Your task to perform on an android device: turn pop-ups on in chrome Image 0: 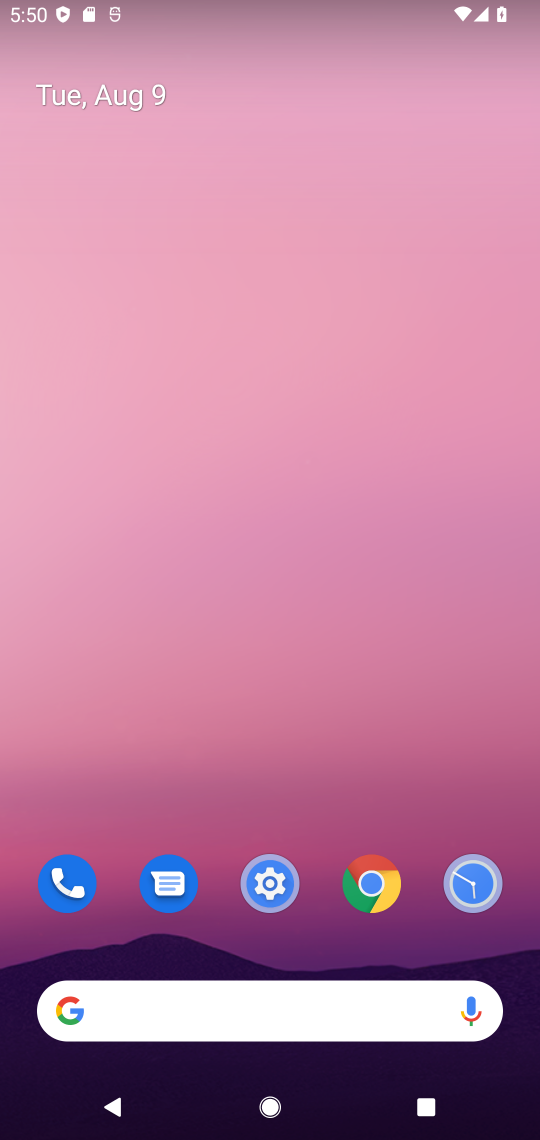
Step 0: click (355, 907)
Your task to perform on an android device: turn pop-ups on in chrome Image 1: 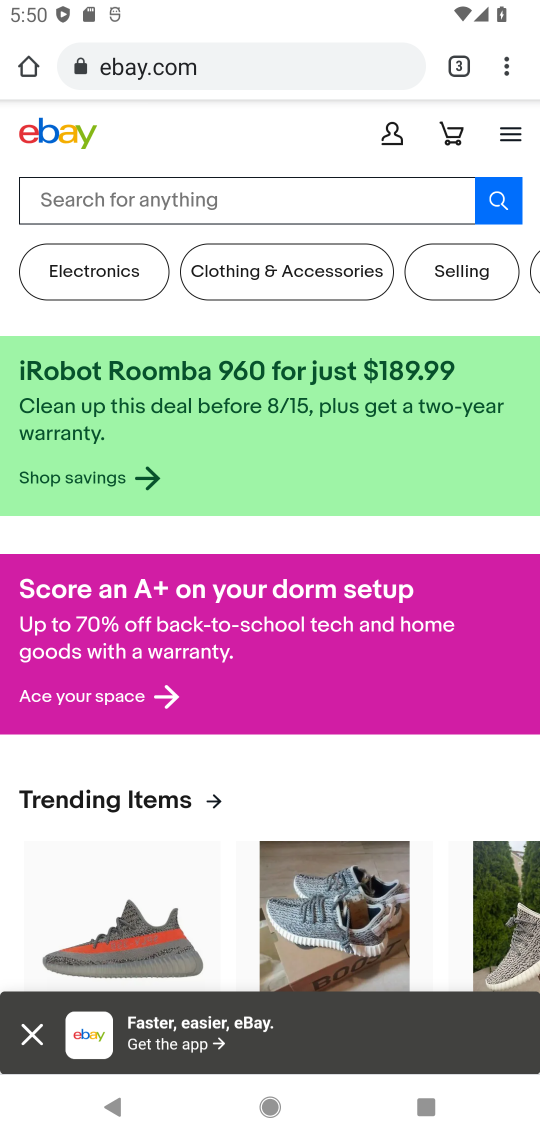
Step 1: click (506, 61)
Your task to perform on an android device: turn pop-ups on in chrome Image 2: 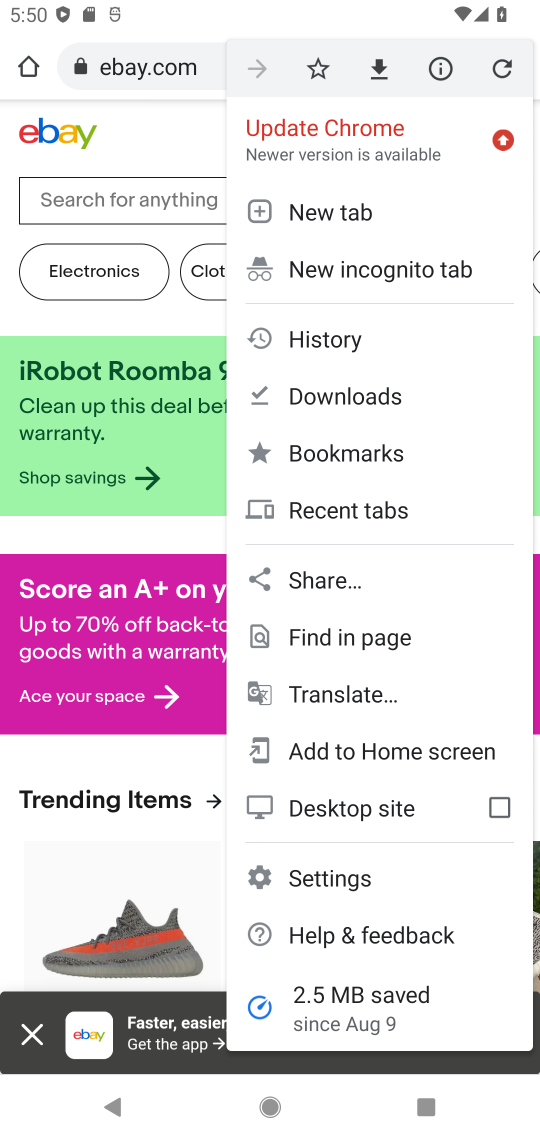
Step 2: click (339, 890)
Your task to perform on an android device: turn pop-ups on in chrome Image 3: 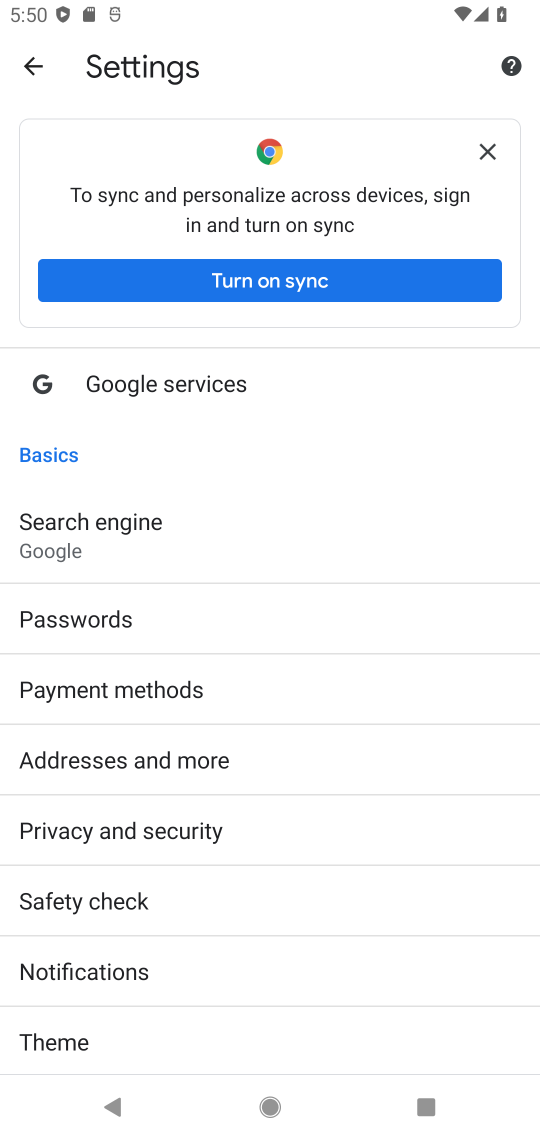
Step 3: drag from (189, 862) to (228, 454)
Your task to perform on an android device: turn pop-ups on in chrome Image 4: 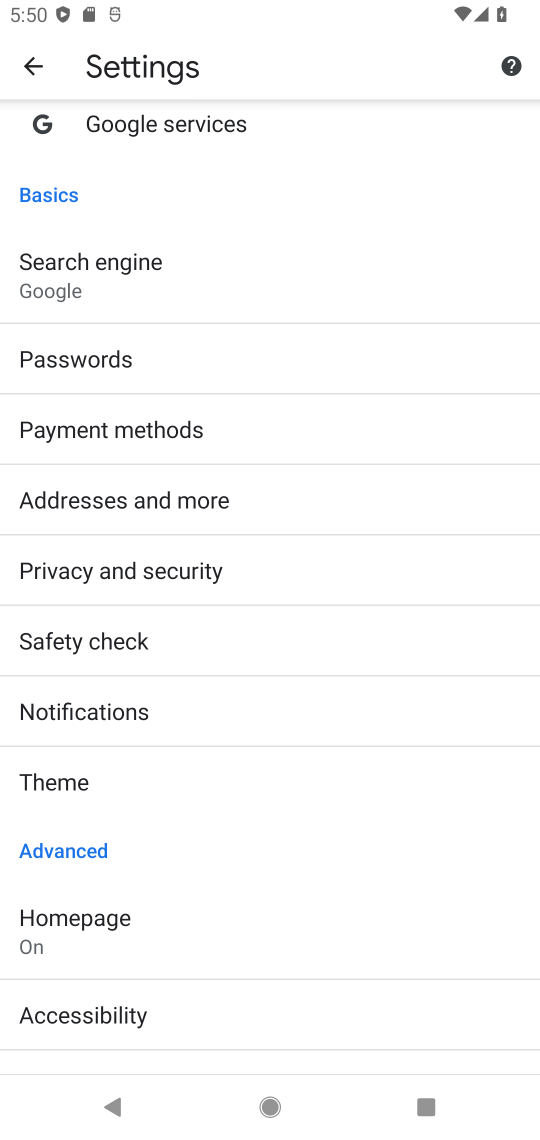
Step 4: drag from (187, 834) to (199, 463)
Your task to perform on an android device: turn pop-ups on in chrome Image 5: 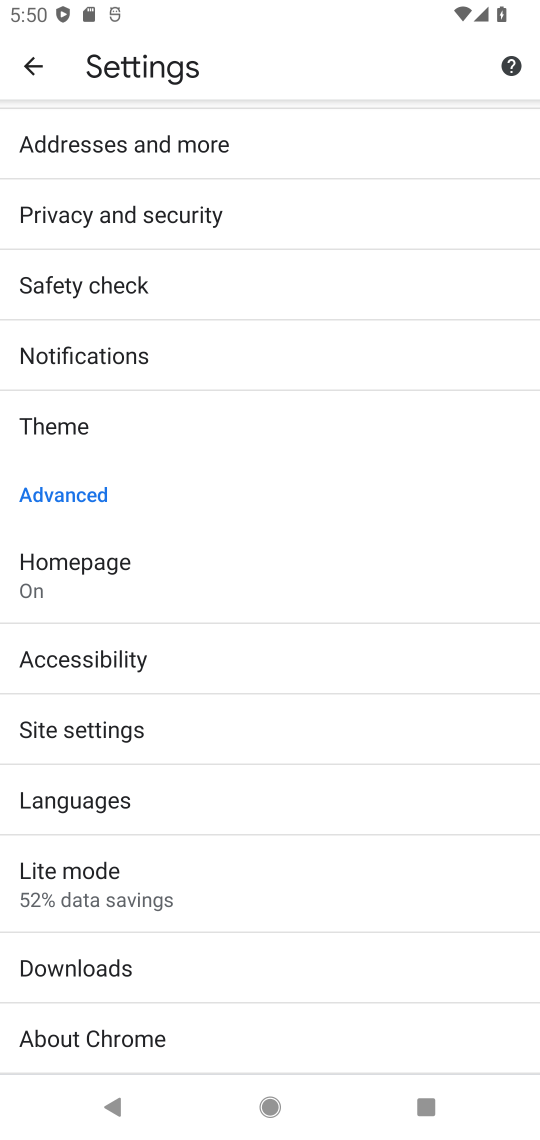
Step 5: click (207, 730)
Your task to perform on an android device: turn pop-ups on in chrome Image 6: 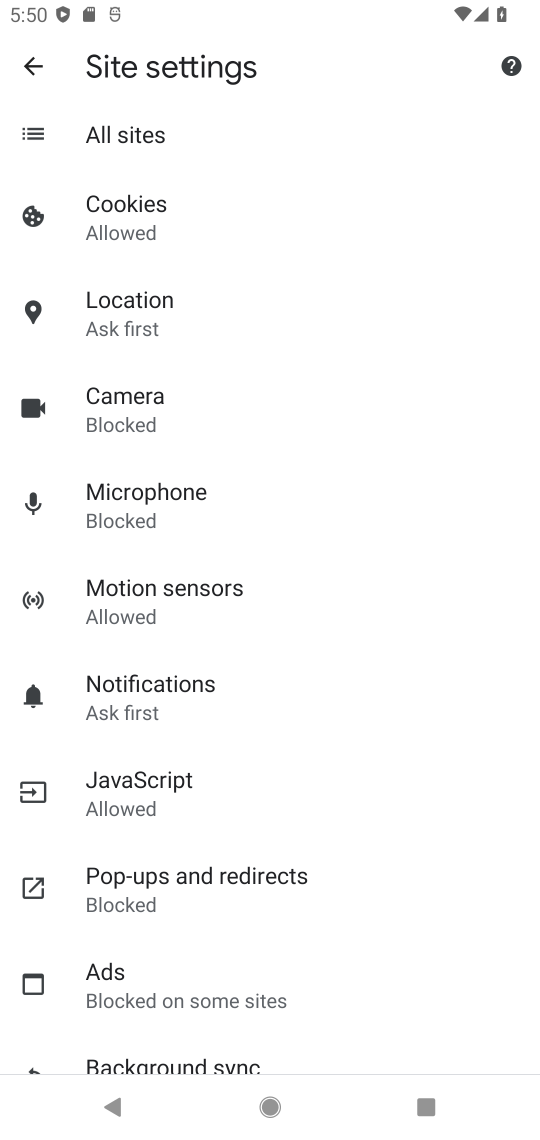
Step 6: click (233, 897)
Your task to perform on an android device: turn pop-ups on in chrome Image 7: 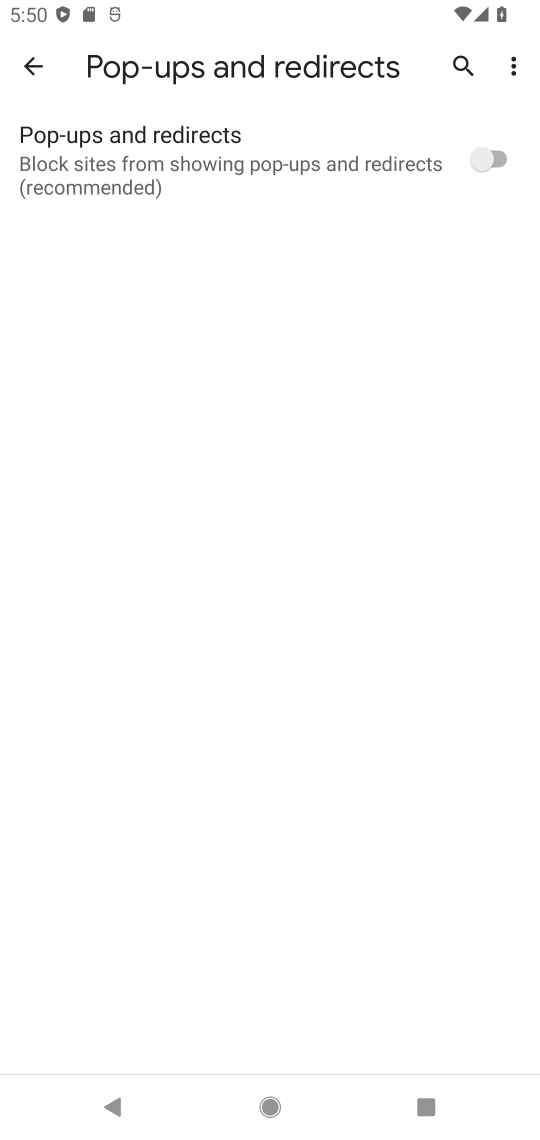
Step 7: click (503, 160)
Your task to perform on an android device: turn pop-ups on in chrome Image 8: 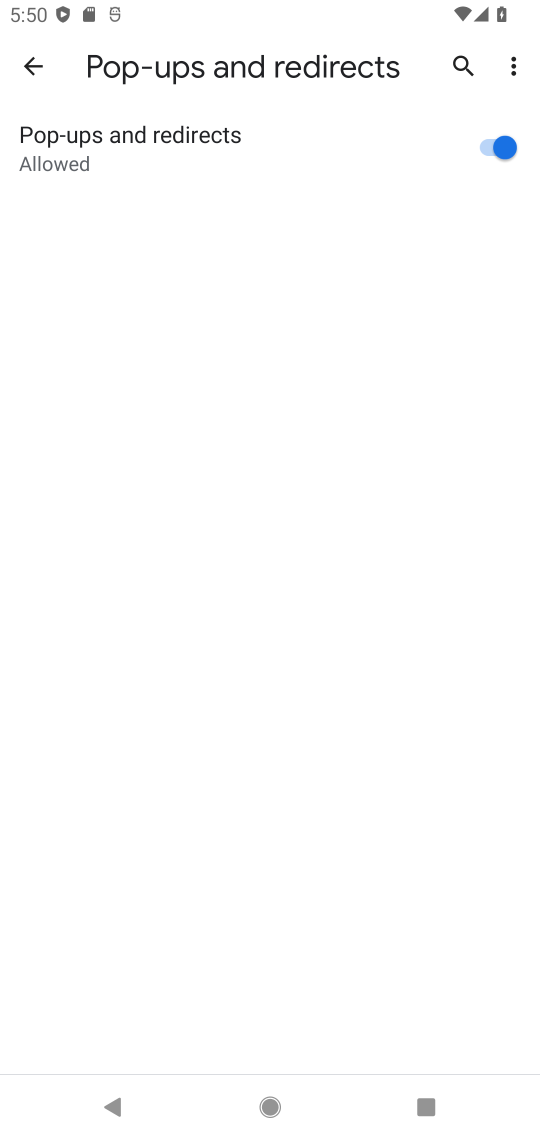
Step 8: task complete